Your task to perform on an android device: Open Google Image 0: 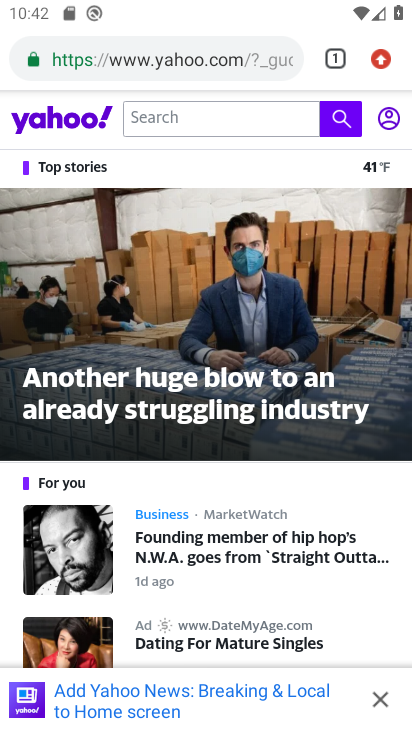
Step 0: press home button
Your task to perform on an android device: Open Google Image 1: 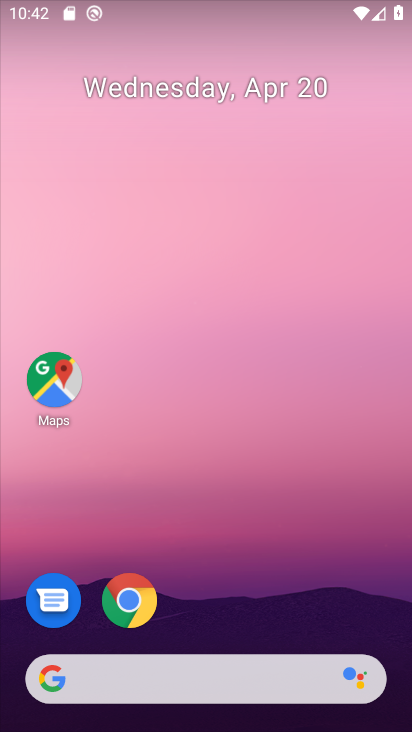
Step 1: drag from (211, 594) to (265, 60)
Your task to perform on an android device: Open Google Image 2: 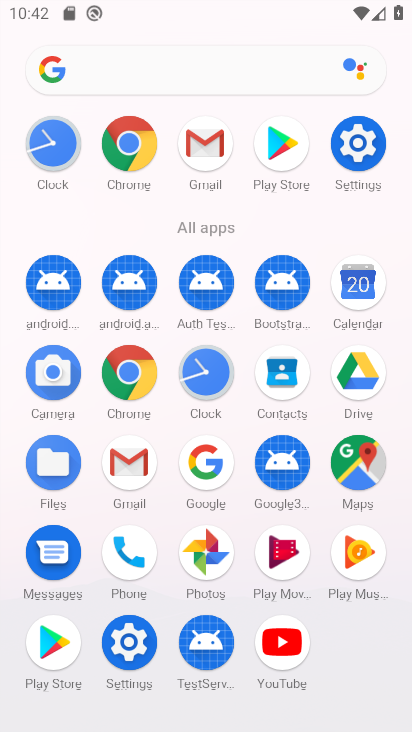
Step 2: click (197, 454)
Your task to perform on an android device: Open Google Image 3: 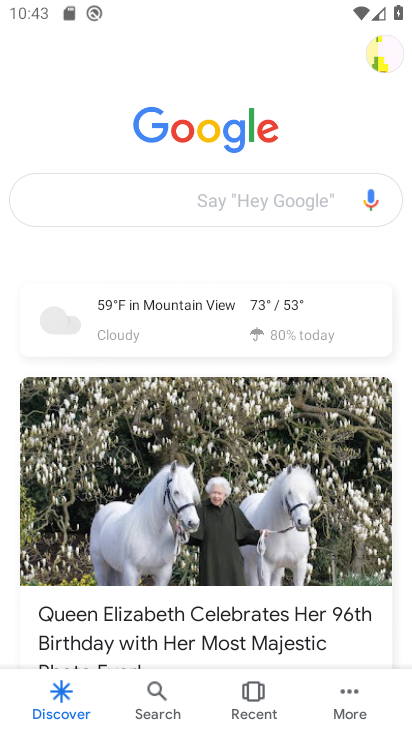
Step 3: task complete